Your task to perform on an android device: Go to Maps Image 0: 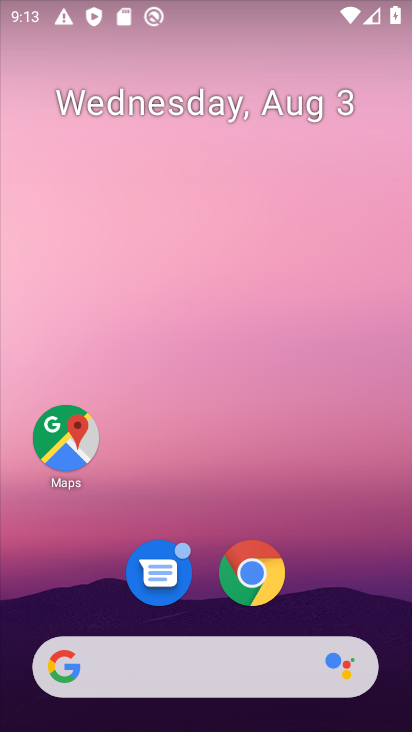
Step 0: drag from (195, 442) to (250, 16)
Your task to perform on an android device: Go to Maps Image 1: 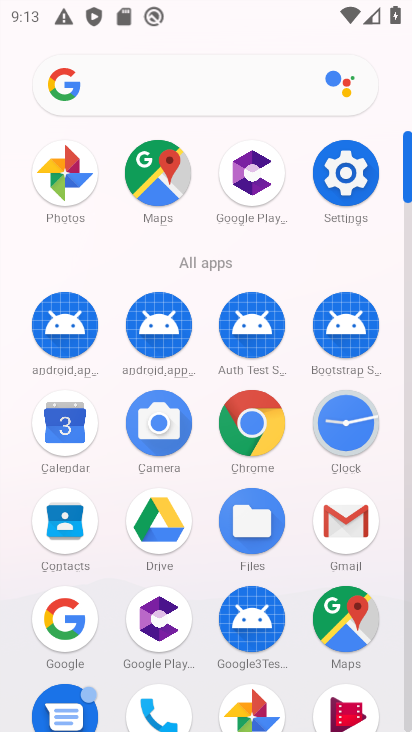
Step 1: click (342, 415)
Your task to perform on an android device: Go to Maps Image 2: 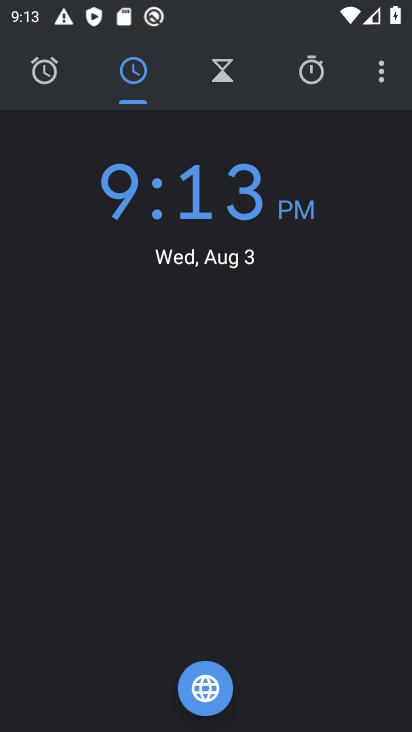
Step 2: press home button
Your task to perform on an android device: Go to Maps Image 3: 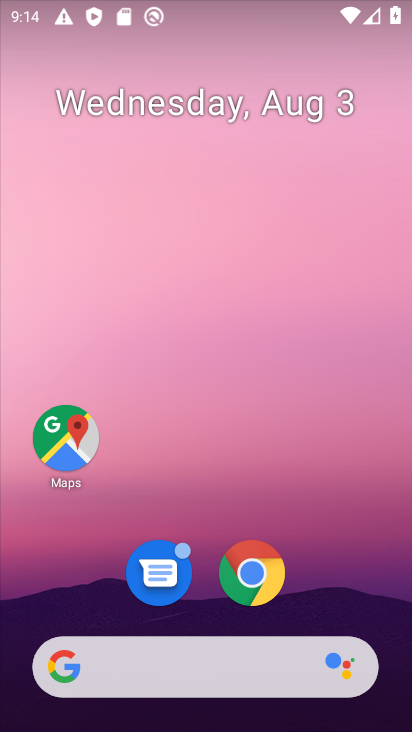
Step 3: click (56, 429)
Your task to perform on an android device: Go to Maps Image 4: 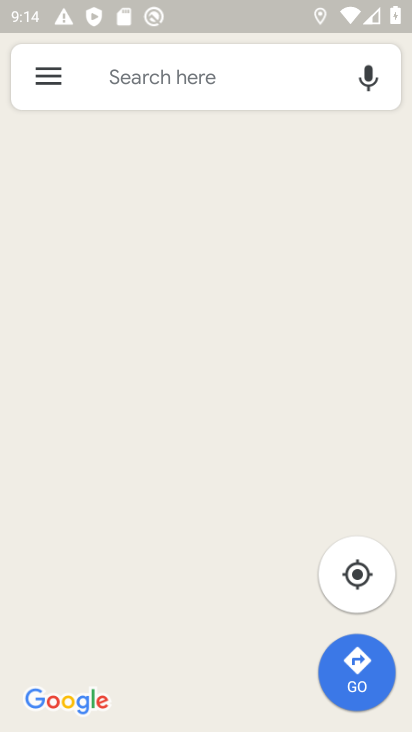
Step 4: task complete